Your task to perform on an android device: open chrome privacy settings Image 0: 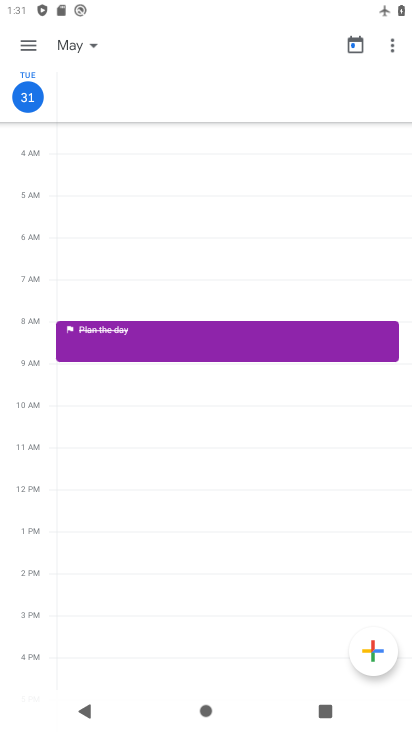
Step 0: press home button
Your task to perform on an android device: open chrome privacy settings Image 1: 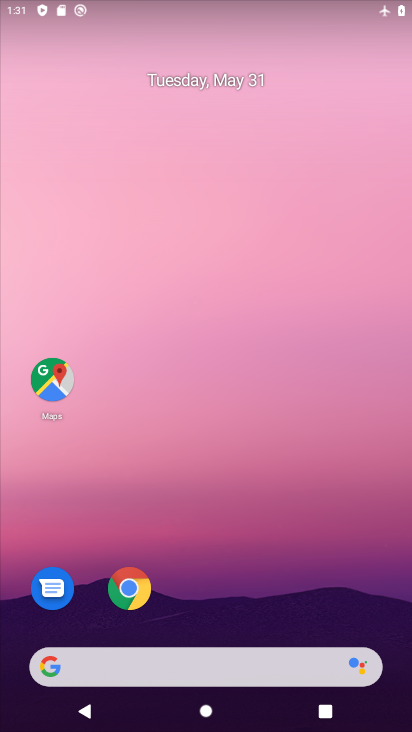
Step 1: drag from (348, 584) to (357, 149)
Your task to perform on an android device: open chrome privacy settings Image 2: 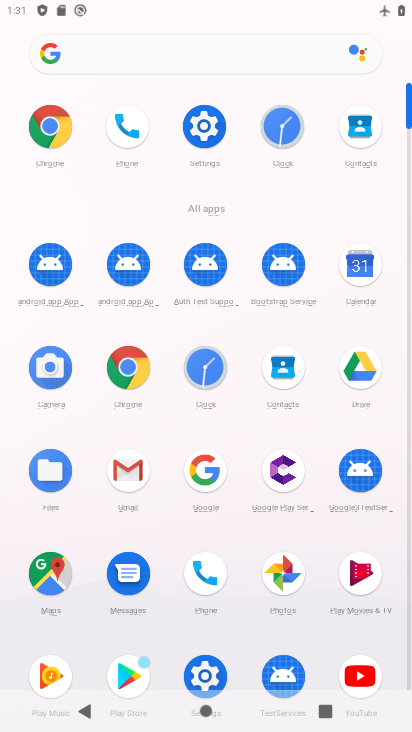
Step 2: click (136, 371)
Your task to perform on an android device: open chrome privacy settings Image 3: 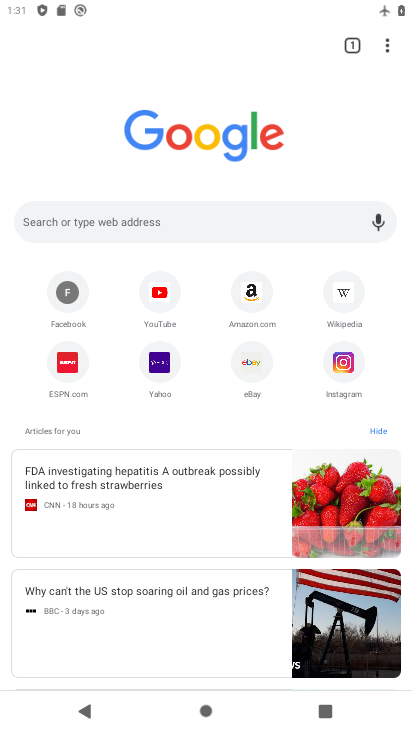
Step 3: click (385, 53)
Your task to perform on an android device: open chrome privacy settings Image 4: 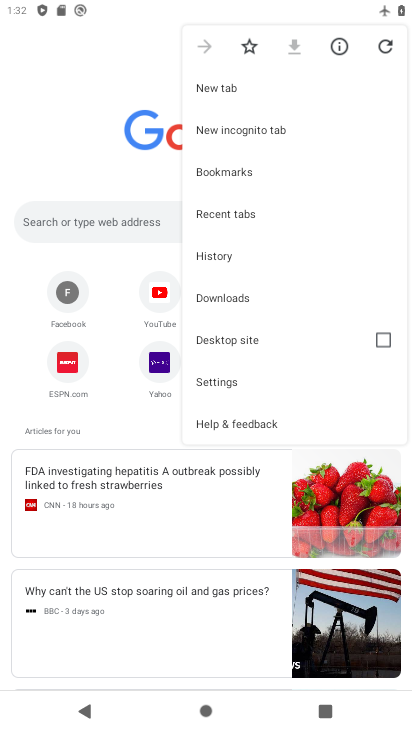
Step 4: click (240, 389)
Your task to perform on an android device: open chrome privacy settings Image 5: 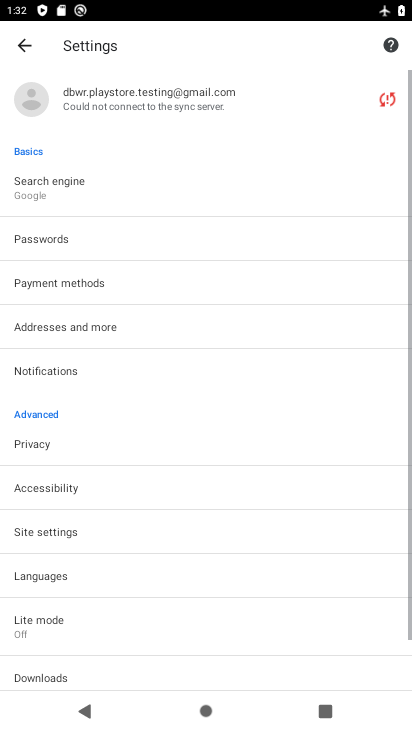
Step 5: drag from (217, 511) to (242, 398)
Your task to perform on an android device: open chrome privacy settings Image 6: 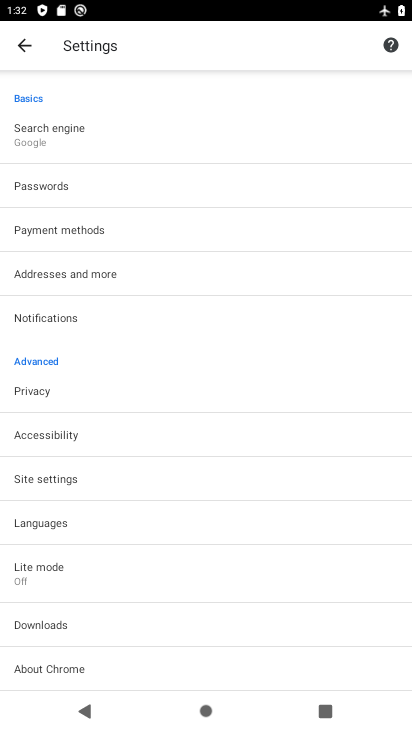
Step 6: drag from (239, 617) to (254, 439)
Your task to perform on an android device: open chrome privacy settings Image 7: 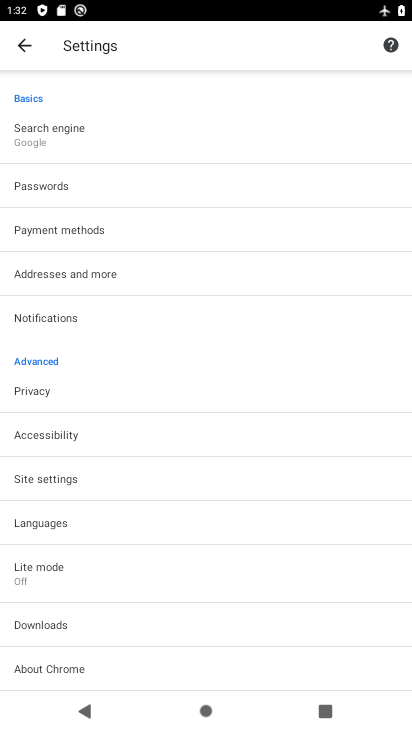
Step 7: drag from (266, 283) to (268, 376)
Your task to perform on an android device: open chrome privacy settings Image 8: 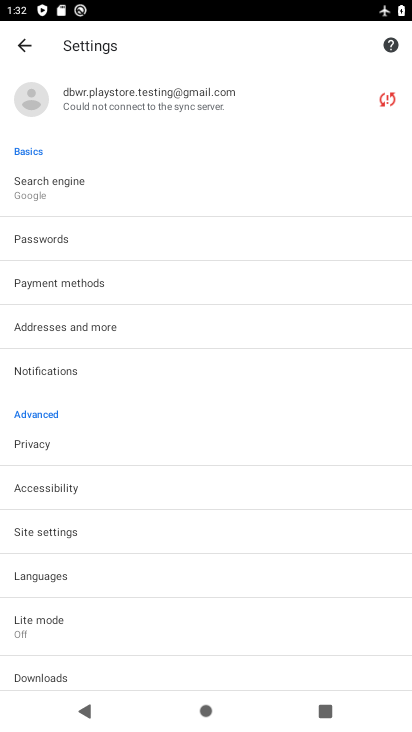
Step 8: drag from (255, 208) to (256, 452)
Your task to perform on an android device: open chrome privacy settings Image 9: 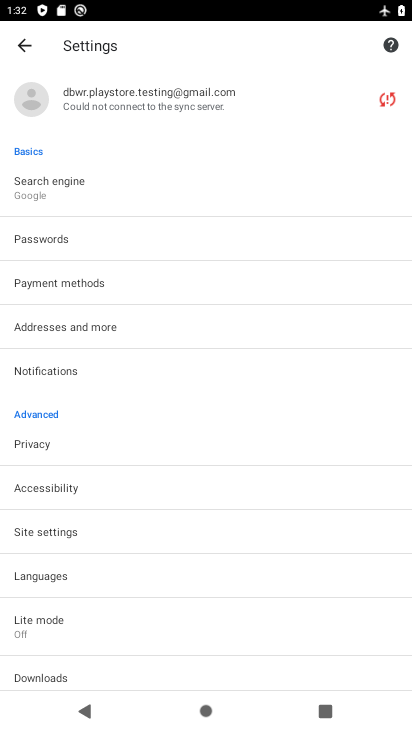
Step 9: click (101, 447)
Your task to perform on an android device: open chrome privacy settings Image 10: 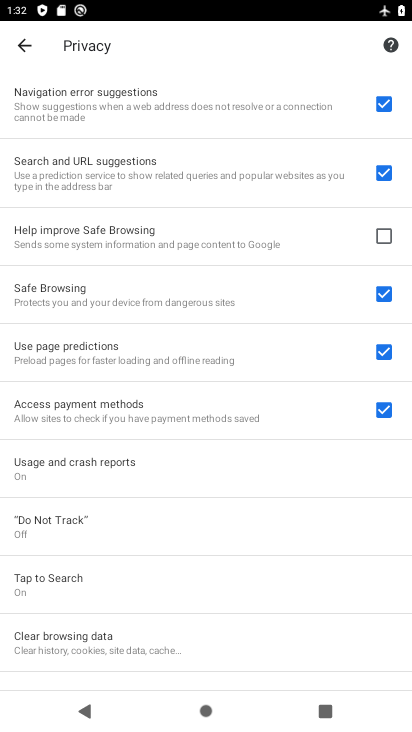
Step 10: task complete